Your task to perform on an android device: Search for vegetarian restaurants on Maps Image 0: 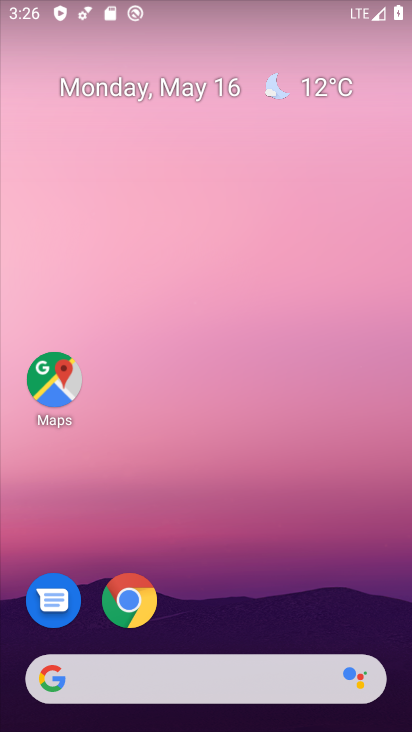
Step 0: click (73, 385)
Your task to perform on an android device: Search for vegetarian restaurants on Maps Image 1: 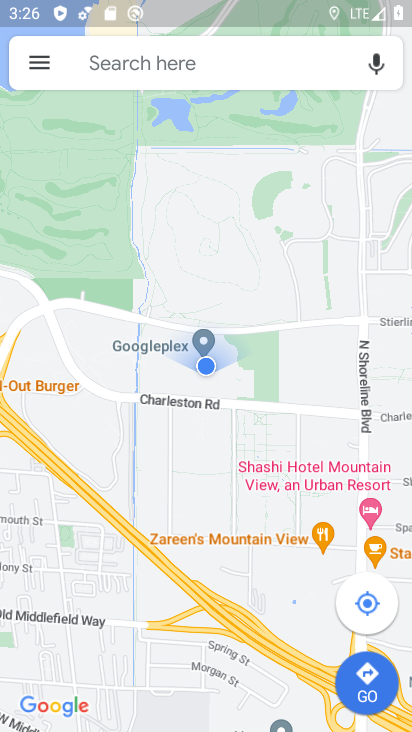
Step 1: click (263, 52)
Your task to perform on an android device: Search for vegetarian restaurants on Maps Image 2: 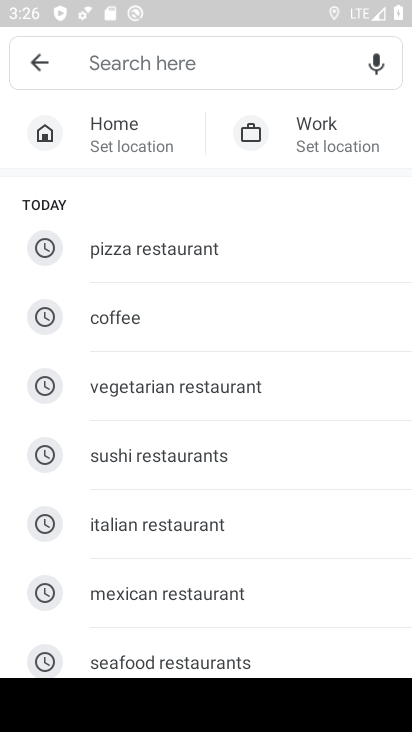
Step 2: type "vegetarian restaurants"
Your task to perform on an android device: Search for vegetarian restaurants on Maps Image 3: 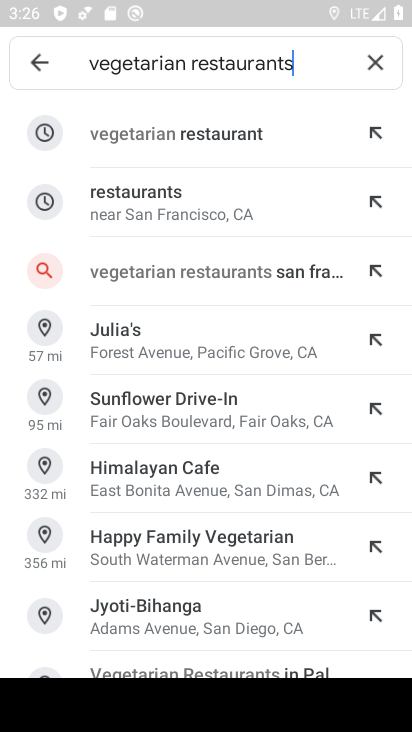
Step 3: press enter
Your task to perform on an android device: Search for vegetarian restaurants on Maps Image 4: 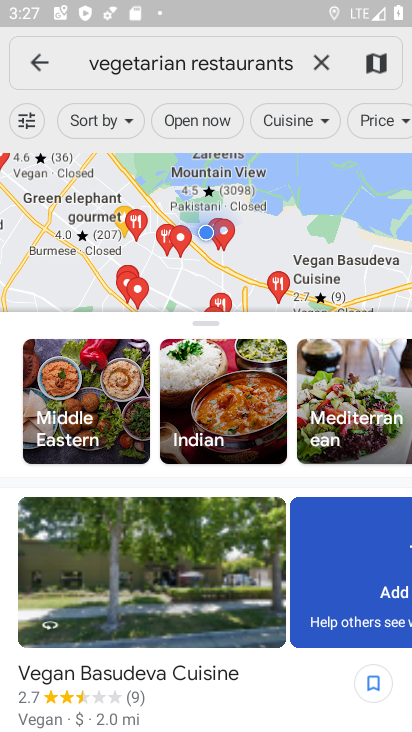
Step 4: task complete